Your task to perform on an android device: Open accessibility settings Image 0: 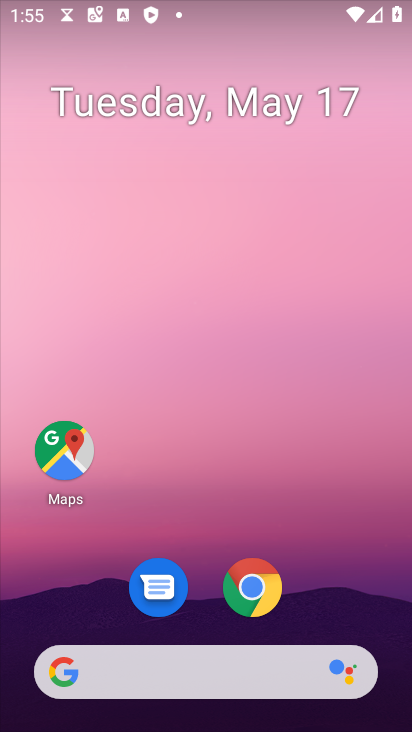
Step 0: drag from (201, 617) to (226, 83)
Your task to perform on an android device: Open accessibility settings Image 1: 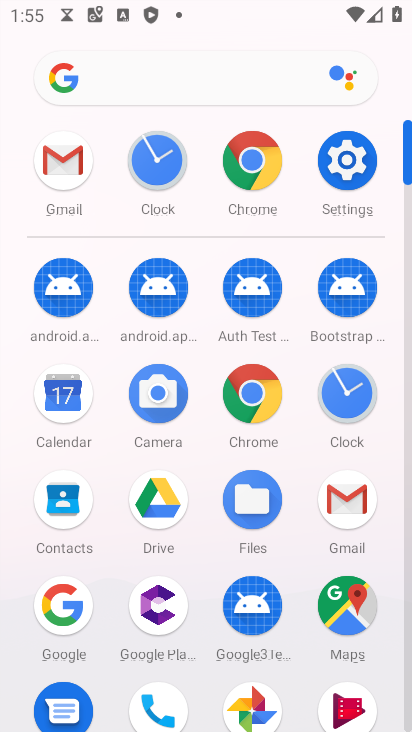
Step 1: click (348, 166)
Your task to perform on an android device: Open accessibility settings Image 2: 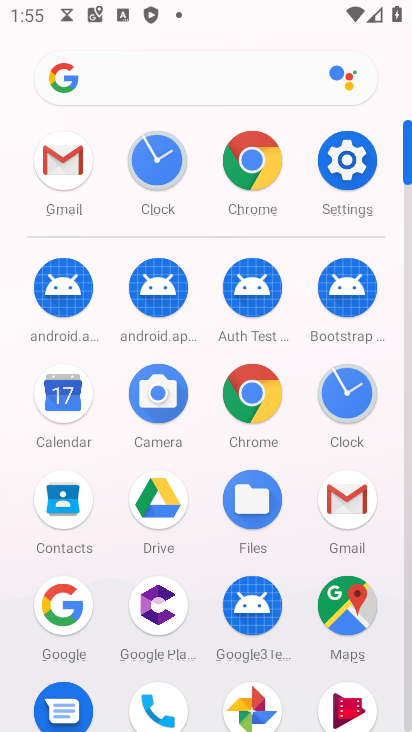
Step 2: click (348, 166)
Your task to perform on an android device: Open accessibility settings Image 3: 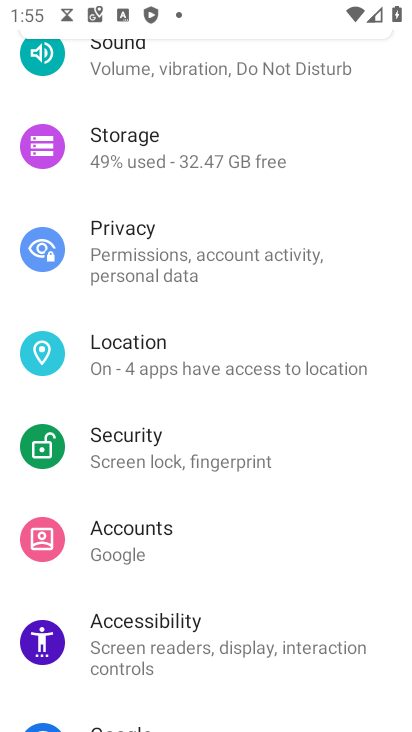
Step 3: drag from (176, 512) to (310, 13)
Your task to perform on an android device: Open accessibility settings Image 4: 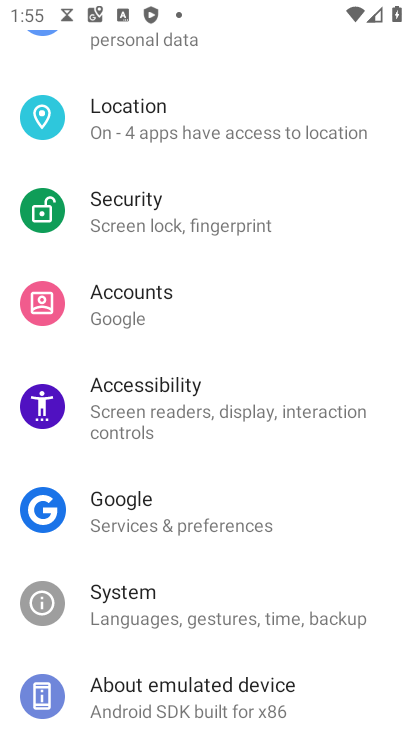
Step 4: click (237, 385)
Your task to perform on an android device: Open accessibility settings Image 5: 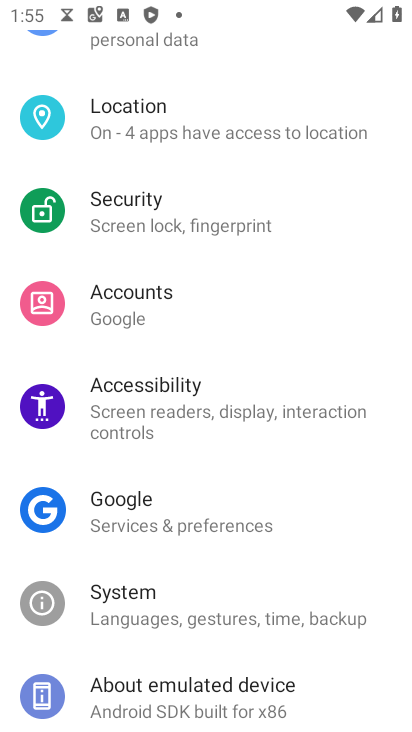
Step 5: click (237, 385)
Your task to perform on an android device: Open accessibility settings Image 6: 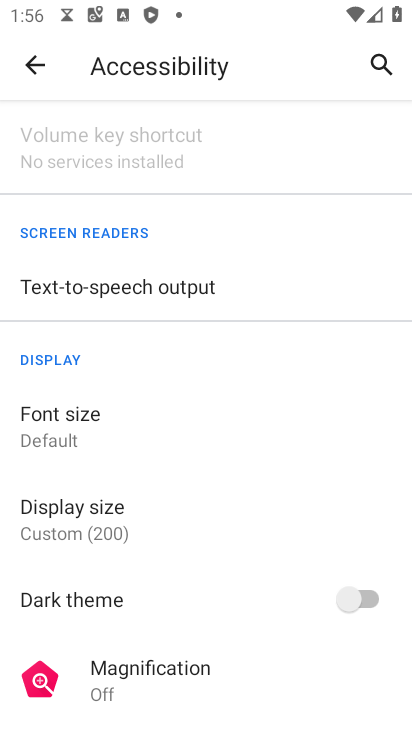
Step 6: task complete